Your task to perform on an android device: turn pop-ups on in chrome Image 0: 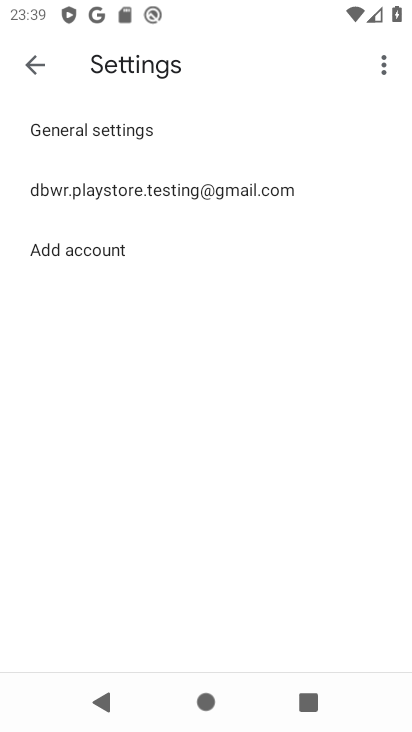
Step 0: press home button
Your task to perform on an android device: turn pop-ups on in chrome Image 1: 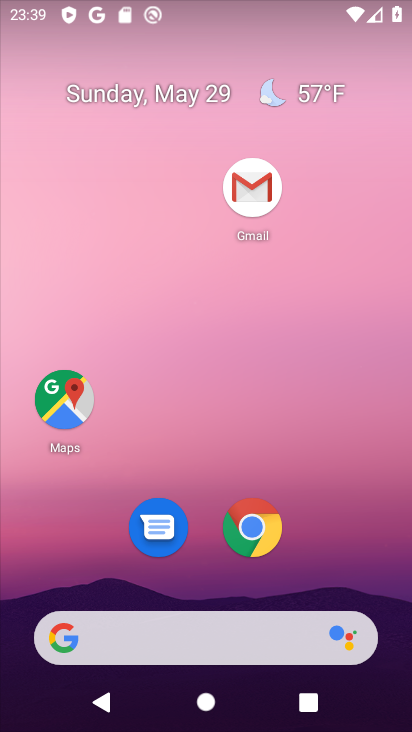
Step 1: click (251, 526)
Your task to perform on an android device: turn pop-ups on in chrome Image 2: 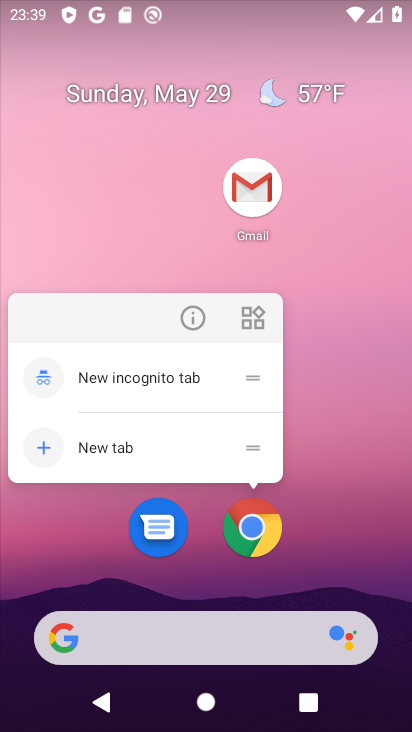
Step 2: click (251, 526)
Your task to perform on an android device: turn pop-ups on in chrome Image 3: 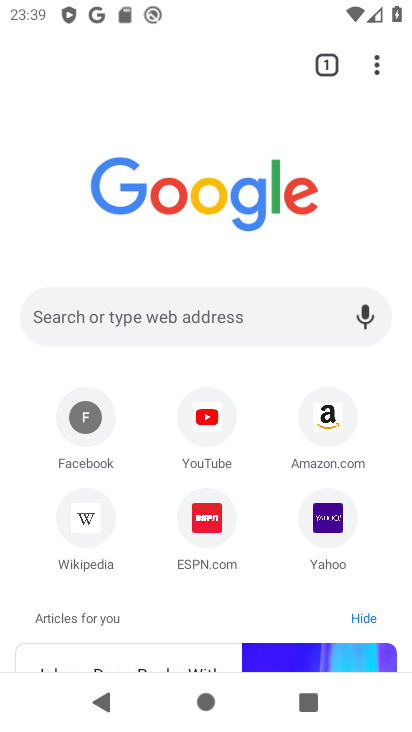
Step 3: click (375, 67)
Your task to perform on an android device: turn pop-ups on in chrome Image 4: 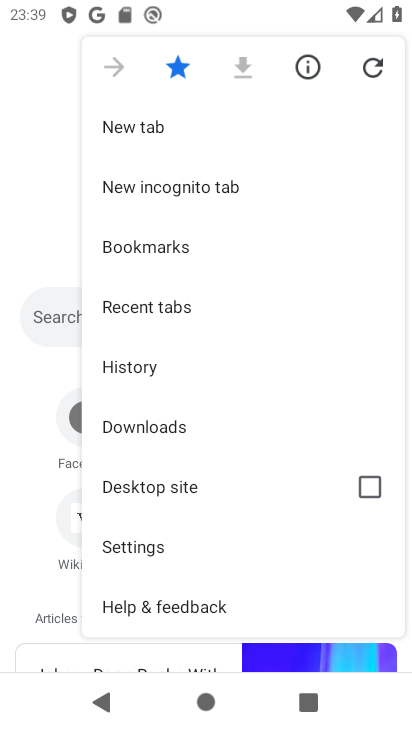
Step 4: click (165, 545)
Your task to perform on an android device: turn pop-ups on in chrome Image 5: 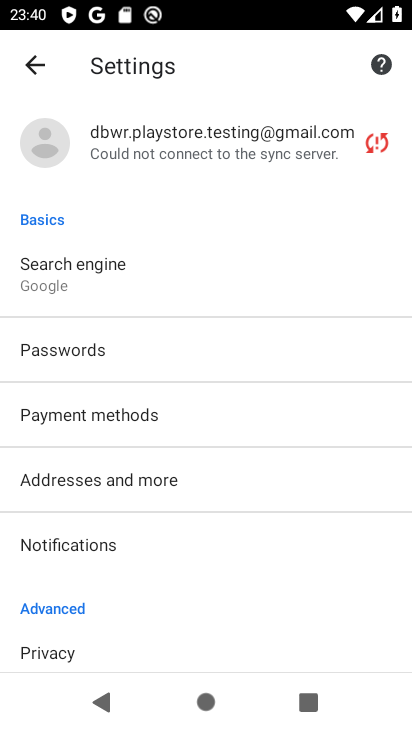
Step 5: drag from (118, 580) to (130, 395)
Your task to perform on an android device: turn pop-ups on in chrome Image 6: 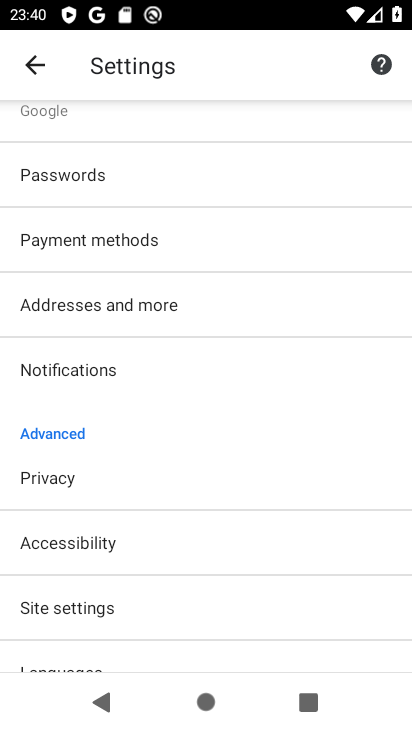
Step 6: click (99, 611)
Your task to perform on an android device: turn pop-ups on in chrome Image 7: 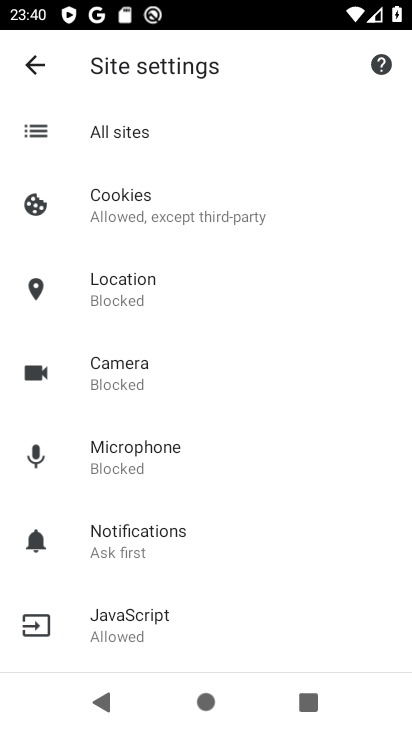
Step 7: drag from (169, 576) to (177, 336)
Your task to perform on an android device: turn pop-ups on in chrome Image 8: 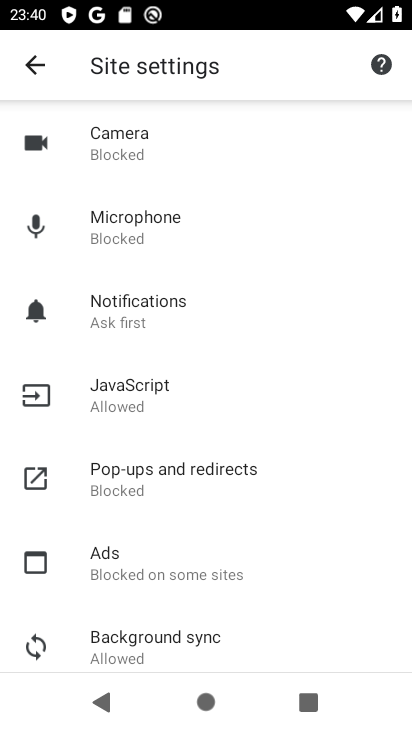
Step 8: click (168, 472)
Your task to perform on an android device: turn pop-ups on in chrome Image 9: 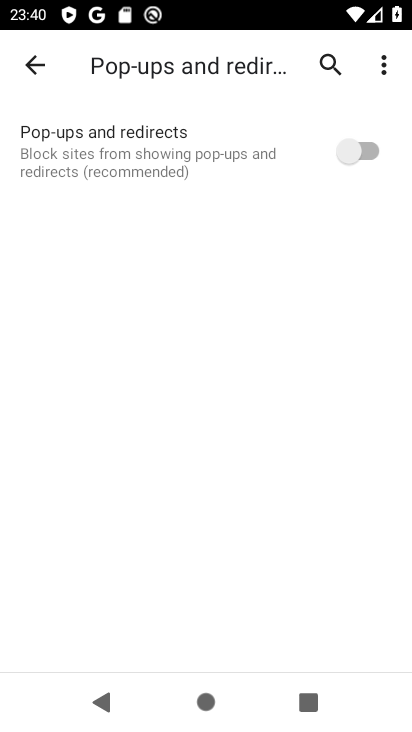
Step 9: click (346, 156)
Your task to perform on an android device: turn pop-ups on in chrome Image 10: 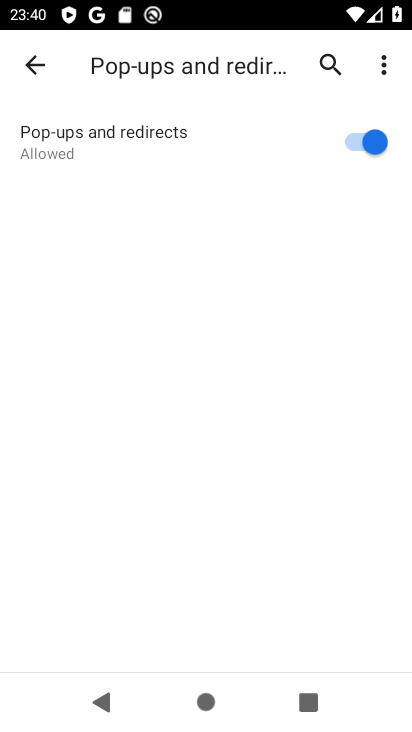
Step 10: task complete